Your task to perform on an android device: Open Chrome and go to settings Image 0: 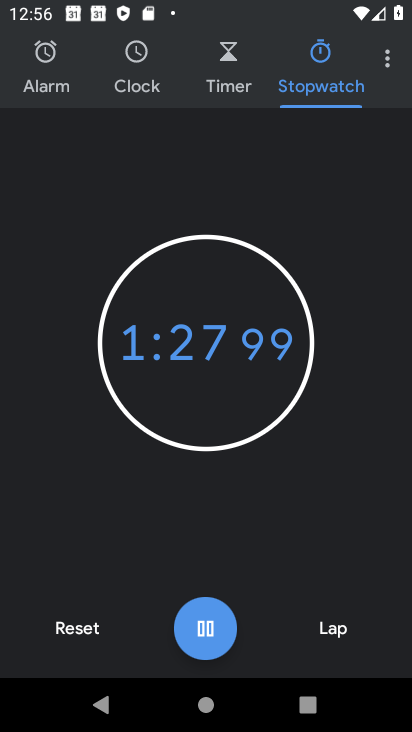
Step 0: click (85, 630)
Your task to perform on an android device: Open Chrome and go to settings Image 1: 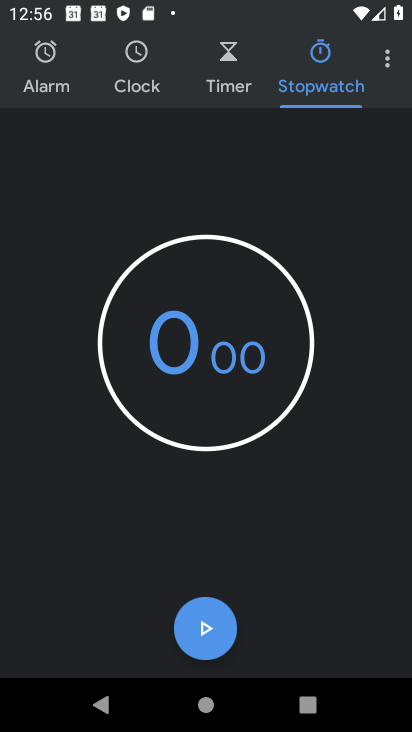
Step 1: press home button
Your task to perform on an android device: Open Chrome and go to settings Image 2: 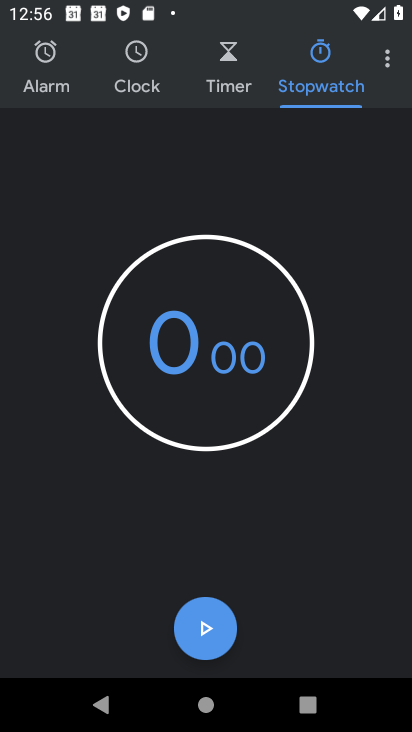
Step 2: drag from (184, 588) to (331, 169)
Your task to perform on an android device: Open Chrome and go to settings Image 3: 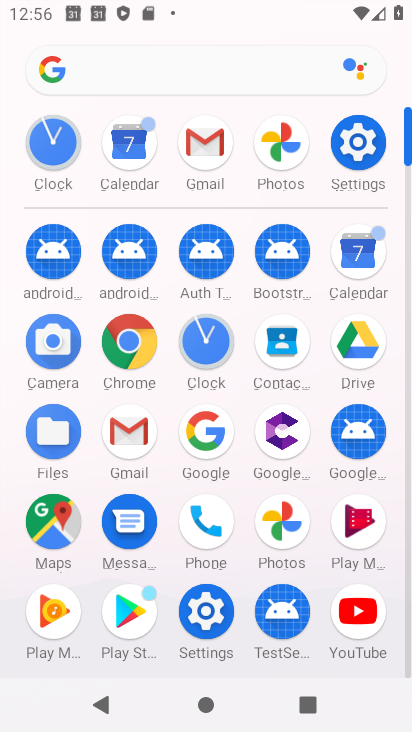
Step 3: click (124, 349)
Your task to perform on an android device: Open Chrome and go to settings Image 4: 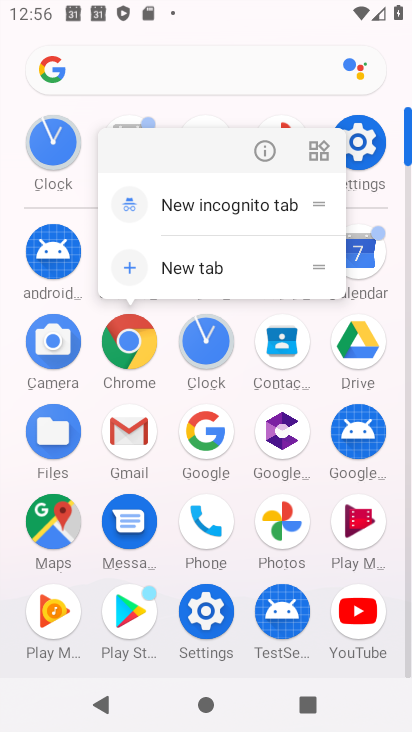
Step 4: click (273, 147)
Your task to perform on an android device: Open Chrome and go to settings Image 5: 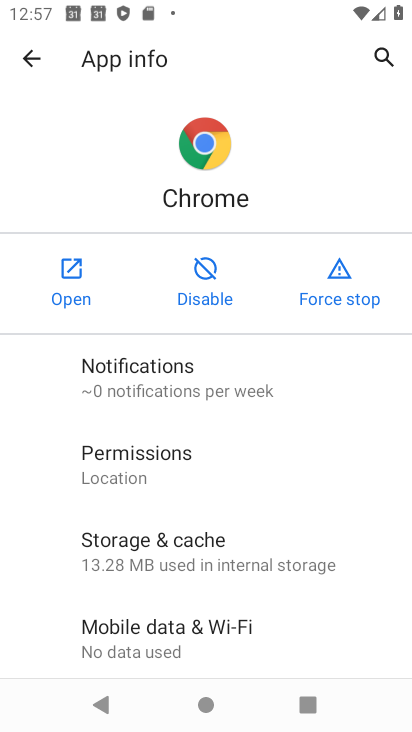
Step 5: click (60, 278)
Your task to perform on an android device: Open Chrome and go to settings Image 6: 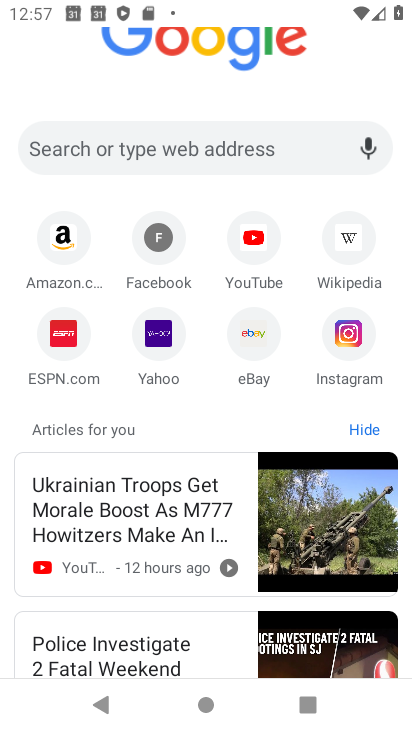
Step 6: task complete